Your task to perform on an android device: How do I get to the nearest Walmart? Image 0: 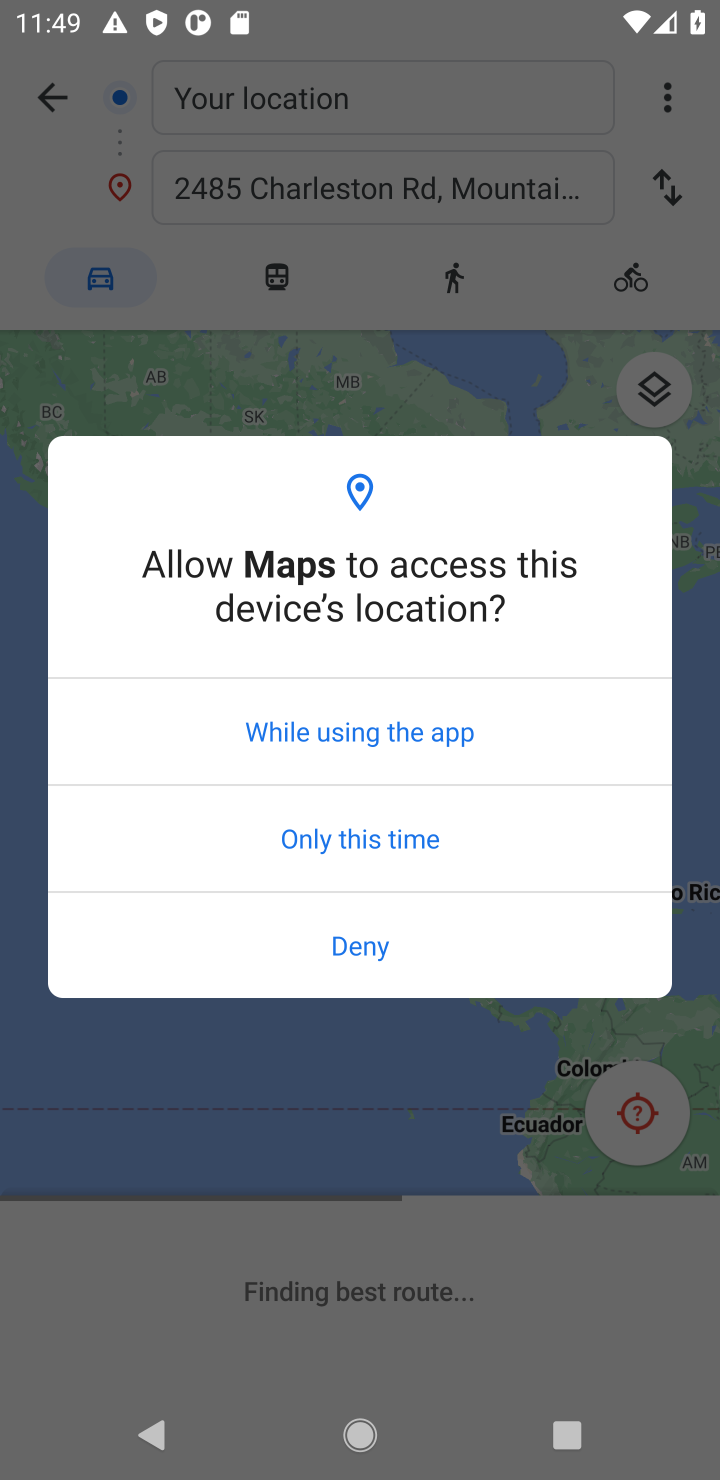
Step 0: click (414, 737)
Your task to perform on an android device: How do I get to the nearest Walmart? Image 1: 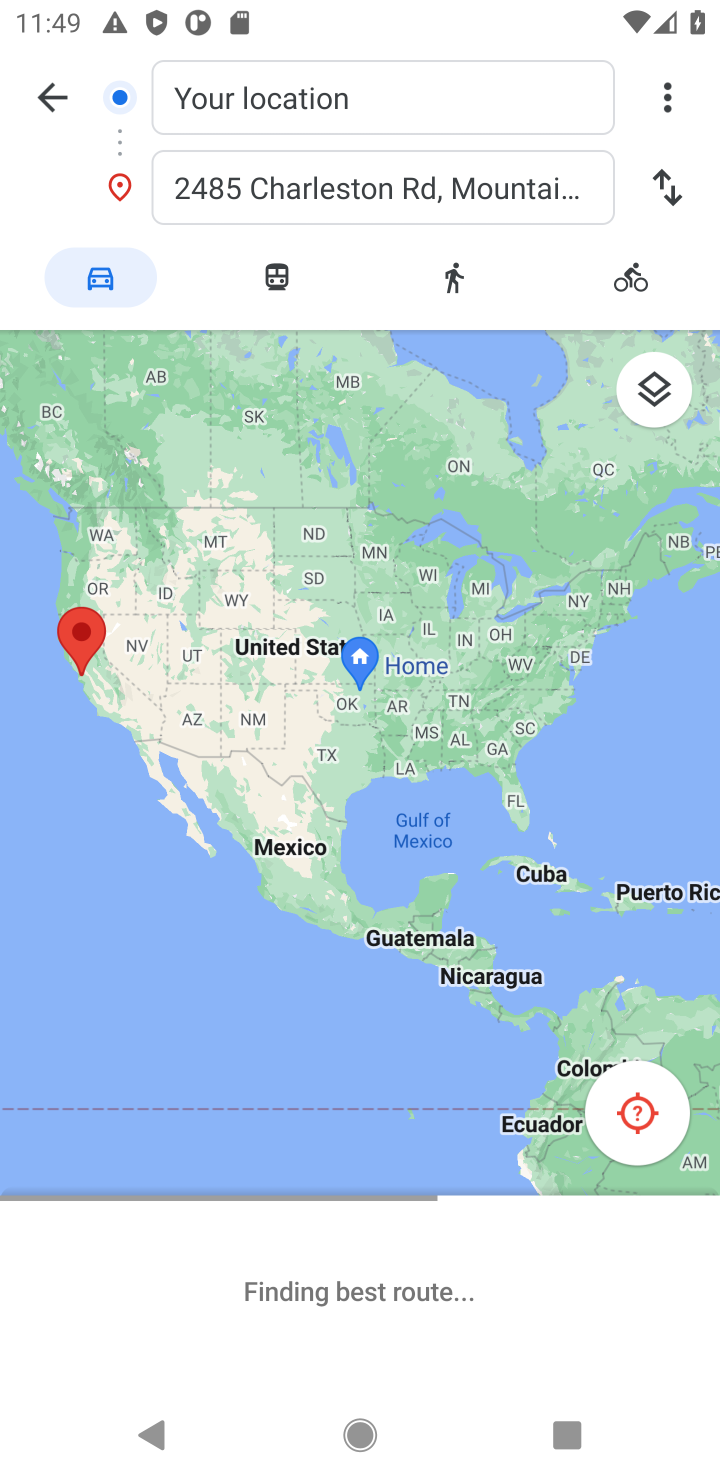
Step 1: task complete